Your task to perform on an android device: turn off improve location accuracy Image 0: 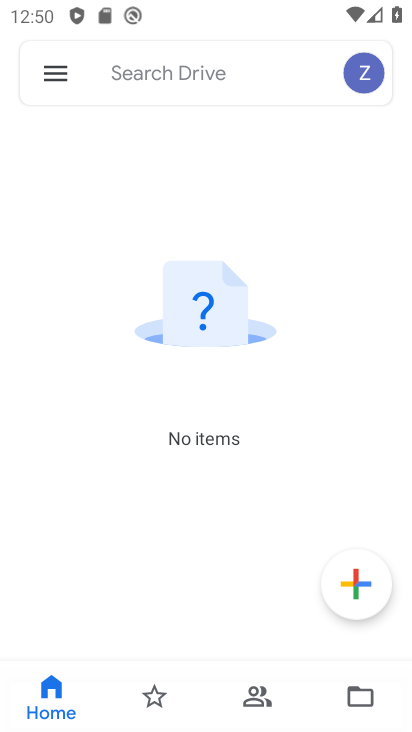
Step 0: press home button
Your task to perform on an android device: turn off improve location accuracy Image 1: 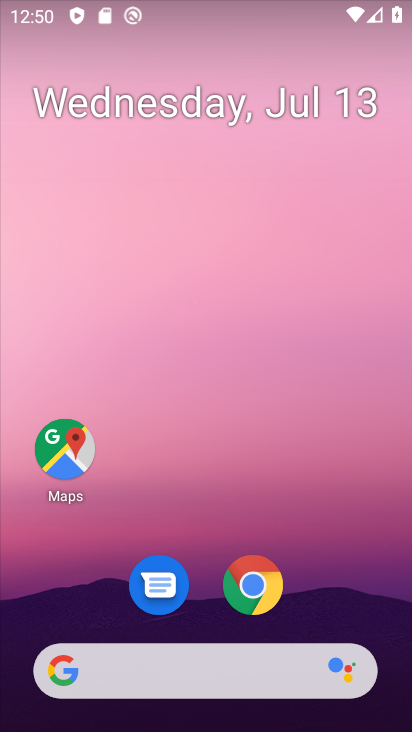
Step 1: drag from (322, 588) to (409, 197)
Your task to perform on an android device: turn off improve location accuracy Image 2: 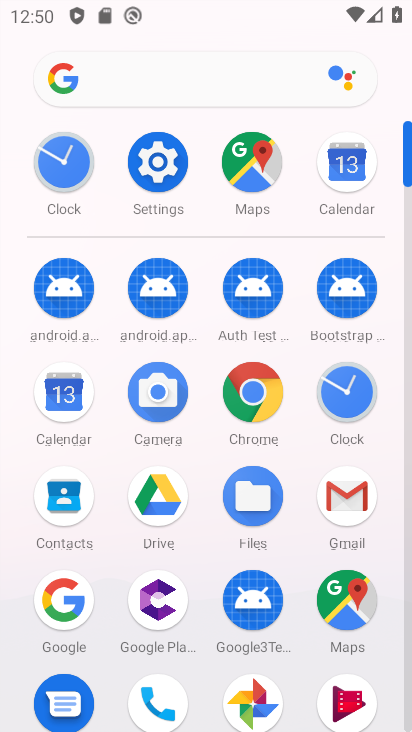
Step 2: click (143, 160)
Your task to perform on an android device: turn off improve location accuracy Image 3: 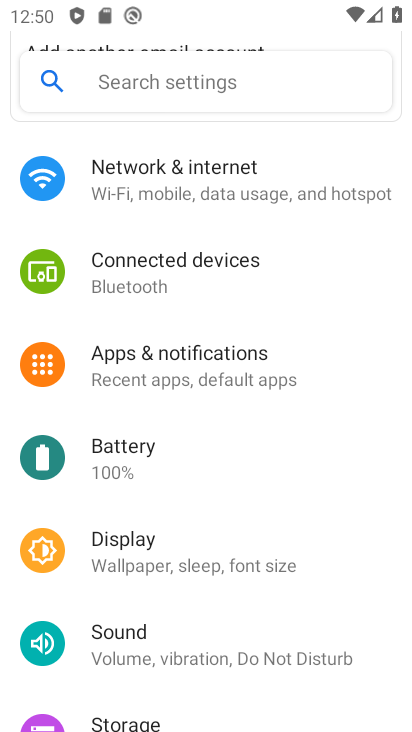
Step 3: drag from (243, 599) to (256, 204)
Your task to perform on an android device: turn off improve location accuracy Image 4: 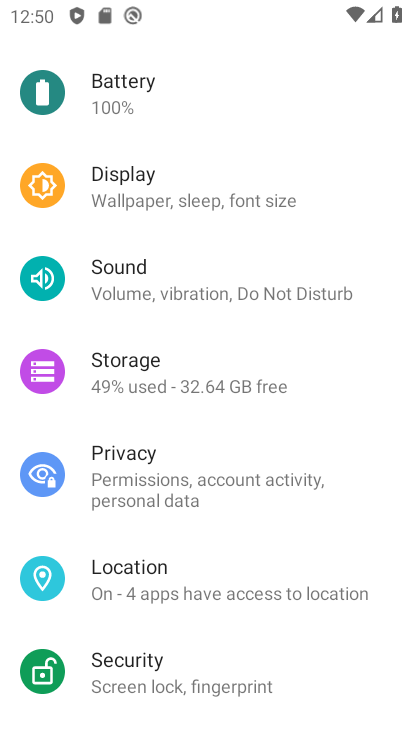
Step 4: click (238, 584)
Your task to perform on an android device: turn off improve location accuracy Image 5: 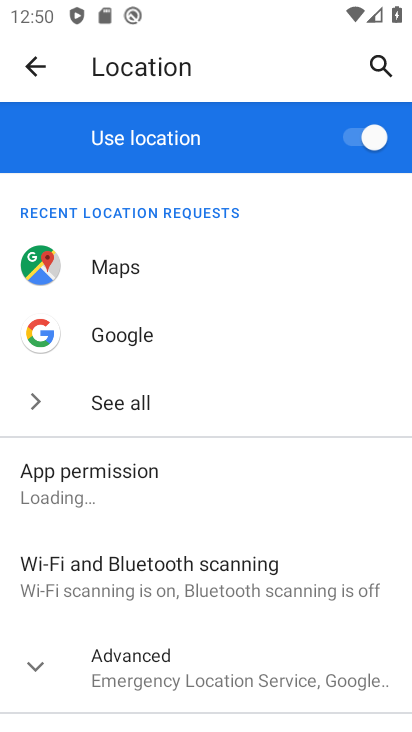
Step 5: drag from (244, 502) to (262, 267)
Your task to perform on an android device: turn off improve location accuracy Image 6: 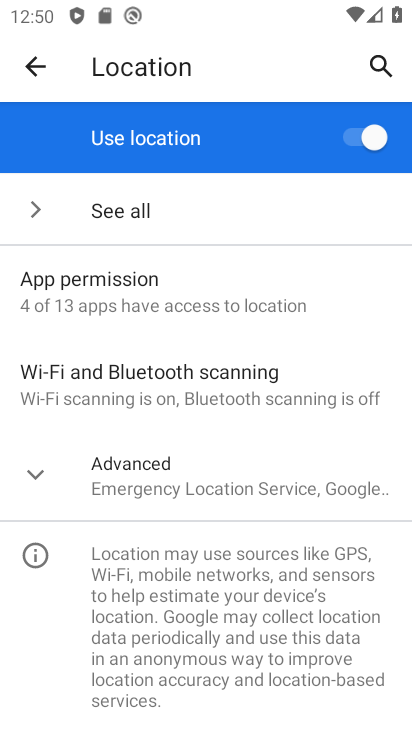
Step 6: click (27, 466)
Your task to perform on an android device: turn off improve location accuracy Image 7: 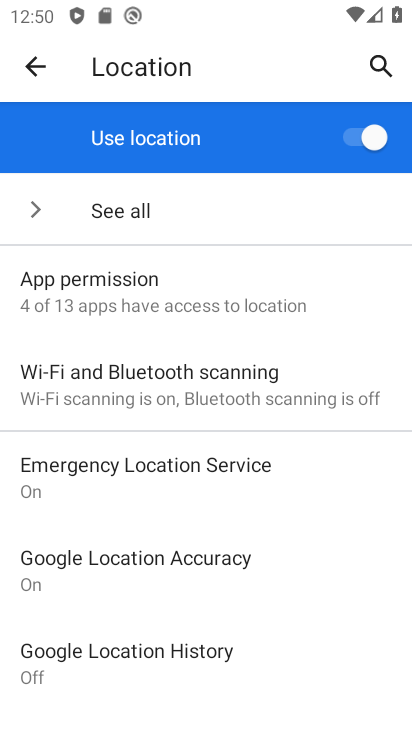
Step 7: click (208, 569)
Your task to perform on an android device: turn off improve location accuracy Image 8: 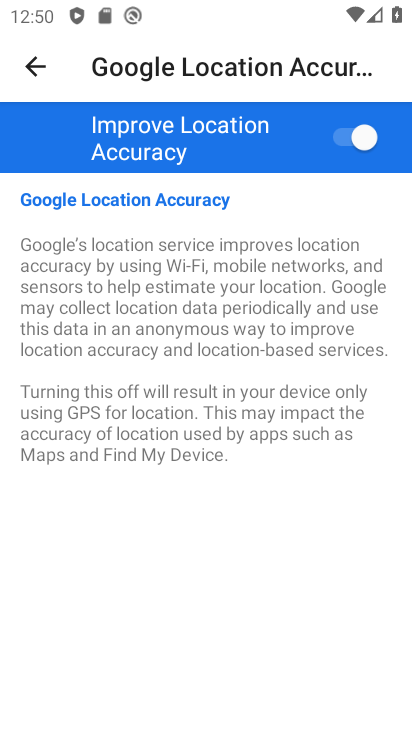
Step 8: click (358, 134)
Your task to perform on an android device: turn off improve location accuracy Image 9: 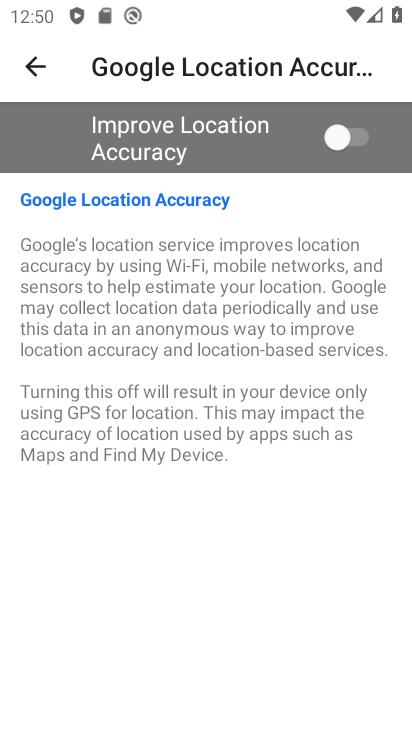
Step 9: task complete